Your task to perform on an android device: Toggle the flashlight Image 0: 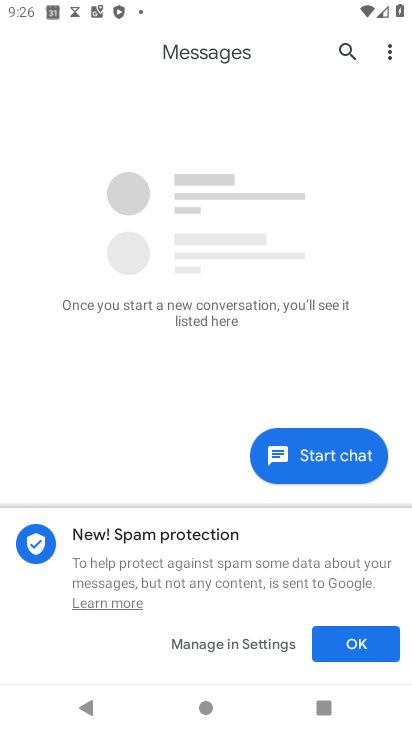
Step 0: press home button
Your task to perform on an android device: Toggle the flashlight Image 1: 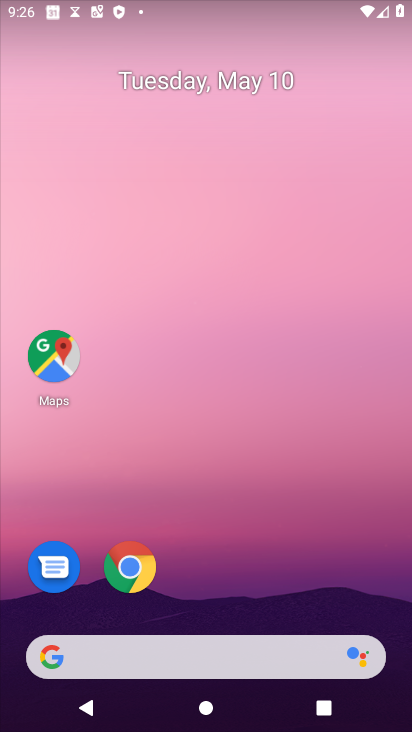
Step 1: drag from (48, 569) to (206, 201)
Your task to perform on an android device: Toggle the flashlight Image 2: 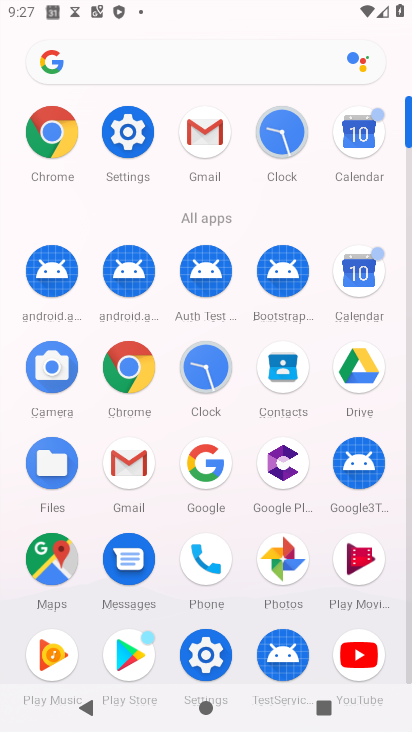
Step 2: click (129, 137)
Your task to perform on an android device: Toggle the flashlight Image 3: 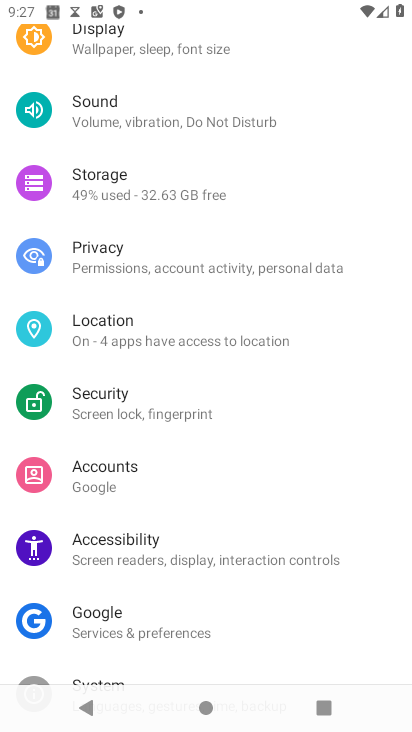
Step 3: click (243, 268)
Your task to perform on an android device: Toggle the flashlight Image 4: 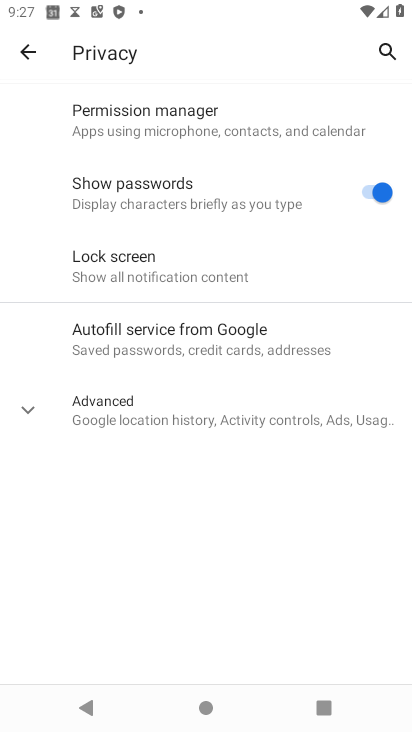
Step 4: task complete